Your task to perform on an android device: turn off javascript in the chrome app Image 0: 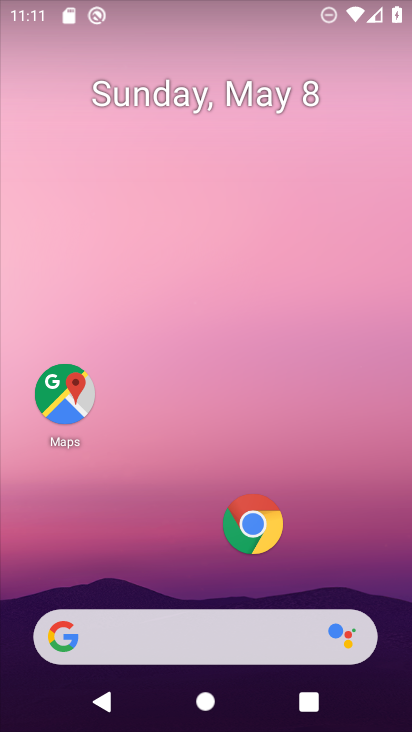
Step 0: drag from (184, 556) to (177, 65)
Your task to perform on an android device: turn off javascript in the chrome app Image 1: 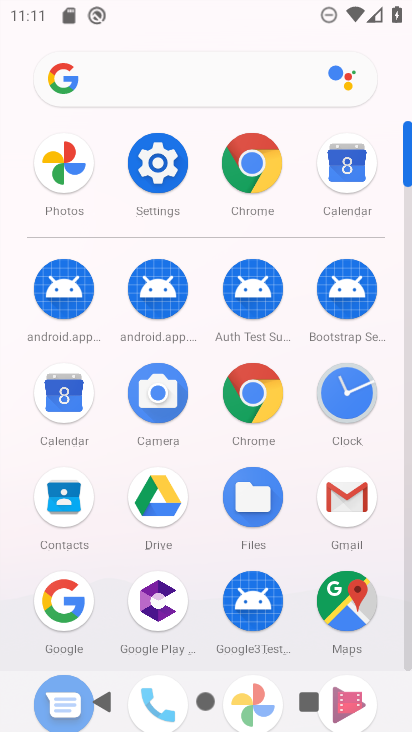
Step 1: click (259, 164)
Your task to perform on an android device: turn off javascript in the chrome app Image 2: 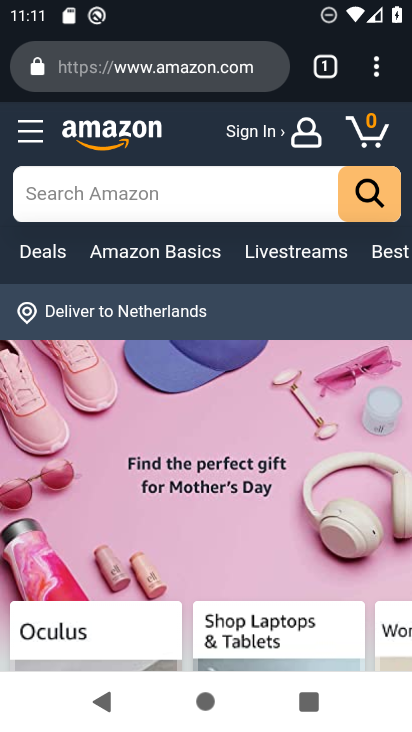
Step 2: click (380, 69)
Your task to perform on an android device: turn off javascript in the chrome app Image 3: 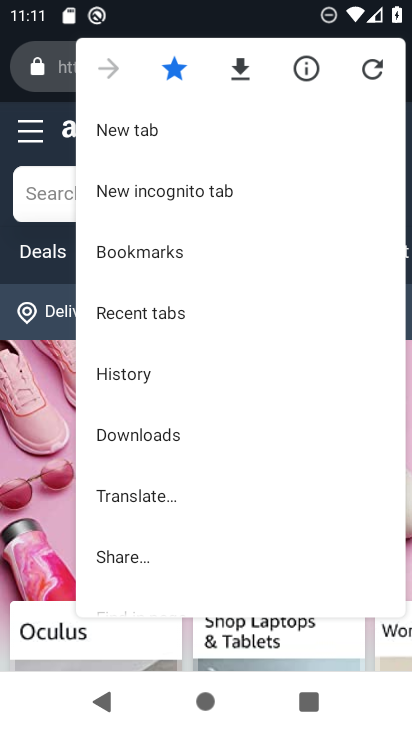
Step 3: drag from (252, 514) to (249, 109)
Your task to perform on an android device: turn off javascript in the chrome app Image 4: 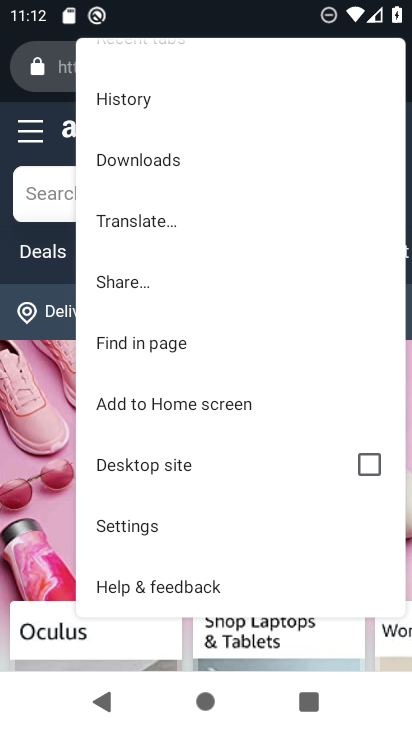
Step 4: click (149, 516)
Your task to perform on an android device: turn off javascript in the chrome app Image 5: 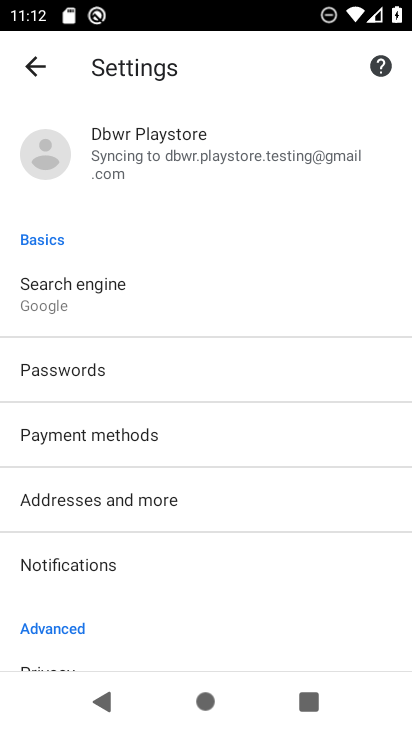
Step 5: drag from (230, 561) to (257, 153)
Your task to perform on an android device: turn off javascript in the chrome app Image 6: 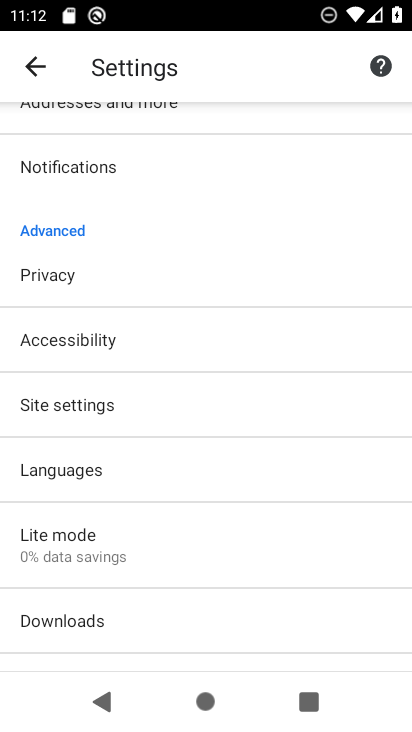
Step 6: click (161, 415)
Your task to perform on an android device: turn off javascript in the chrome app Image 7: 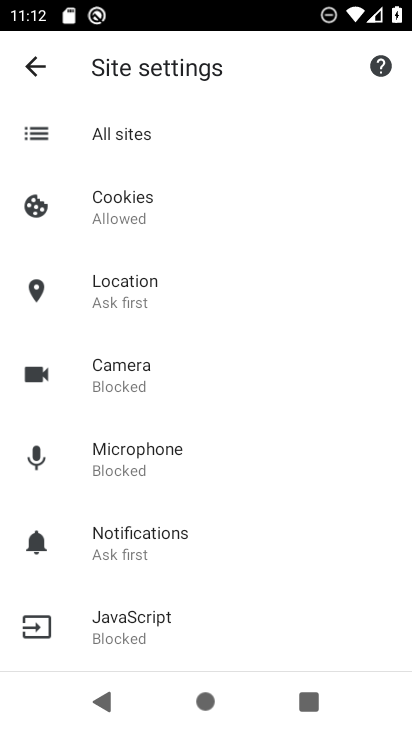
Step 7: click (196, 629)
Your task to perform on an android device: turn off javascript in the chrome app Image 8: 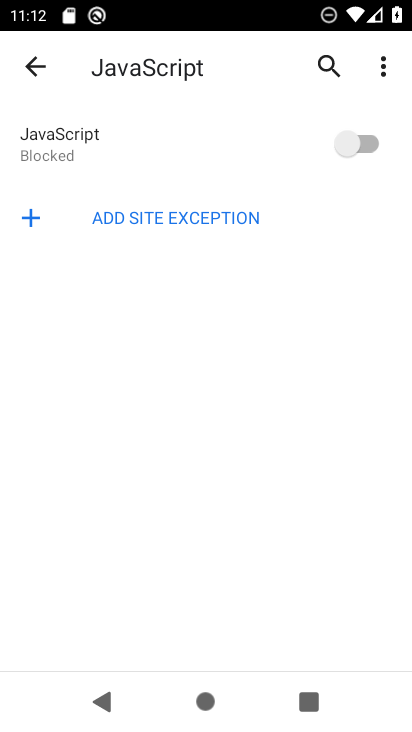
Step 8: task complete